Your task to perform on an android device: open wifi settings Image 0: 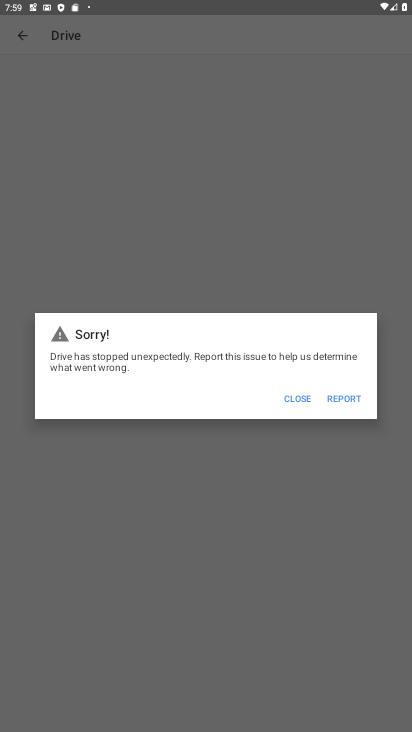
Step 0: press home button
Your task to perform on an android device: open wifi settings Image 1: 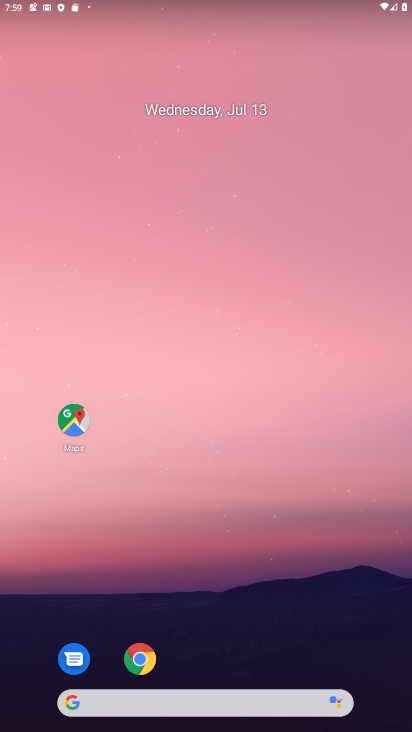
Step 1: drag from (184, 640) to (168, 127)
Your task to perform on an android device: open wifi settings Image 2: 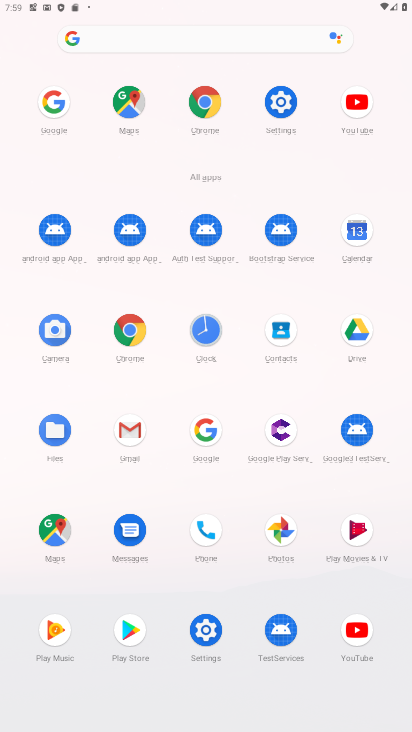
Step 2: click (290, 110)
Your task to perform on an android device: open wifi settings Image 3: 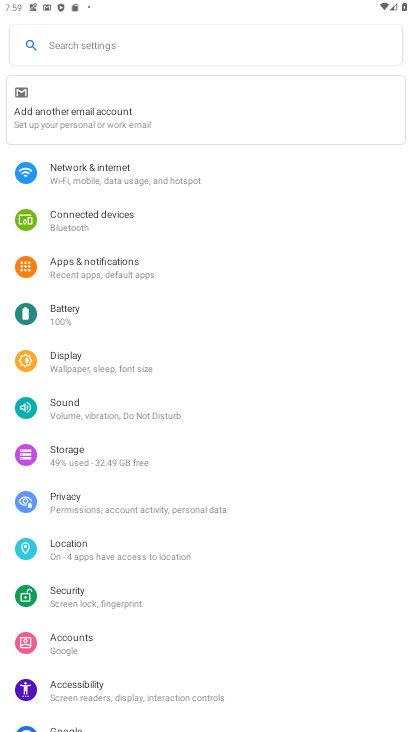
Step 3: click (122, 161)
Your task to perform on an android device: open wifi settings Image 4: 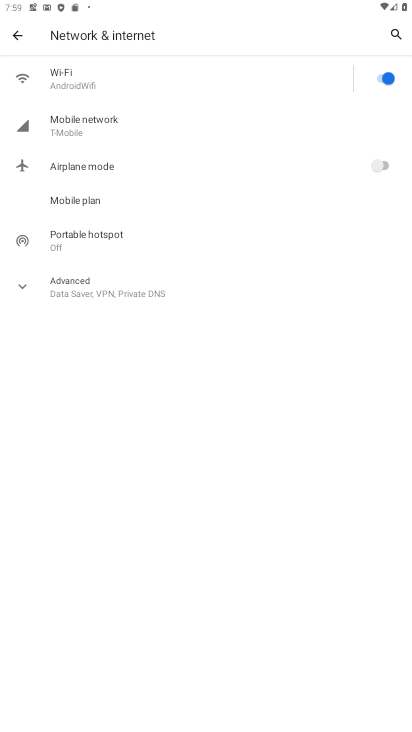
Step 4: click (102, 60)
Your task to perform on an android device: open wifi settings Image 5: 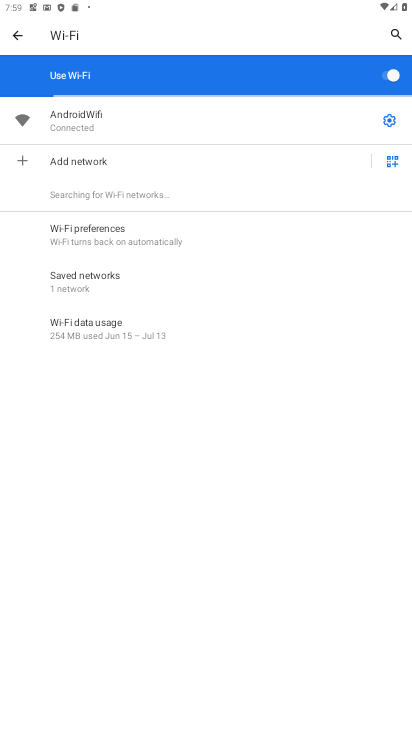
Step 5: task complete